Your task to perform on an android device: Go to battery settings Image 0: 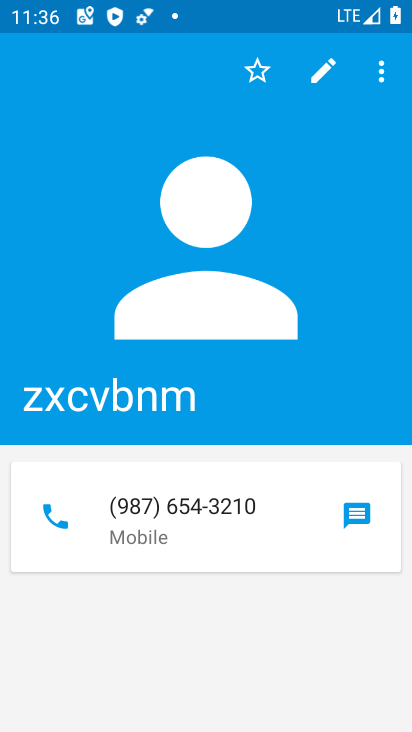
Step 0: press home button
Your task to perform on an android device: Go to battery settings Image 1: 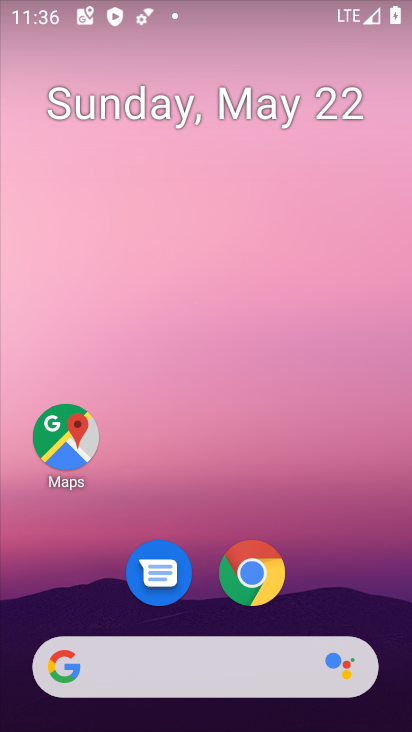
Step 1: drag from (333, 619) to (321, 49)
Your task to perform on an android device: Go to battery settings Image 2: 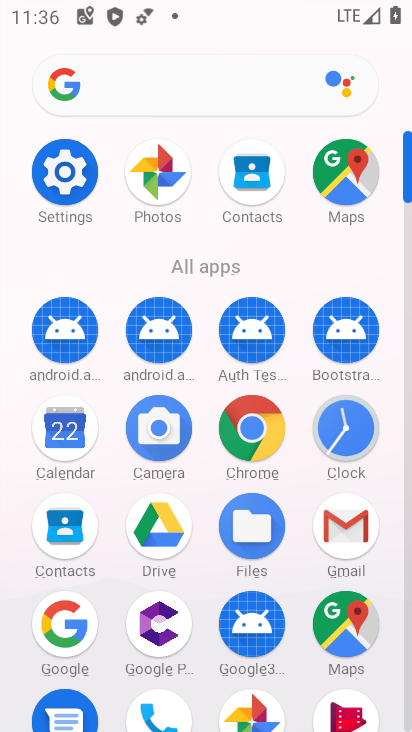
Step 2: click (47, 176)
Your task to perform on an android device: Go to battery settings Image 3: 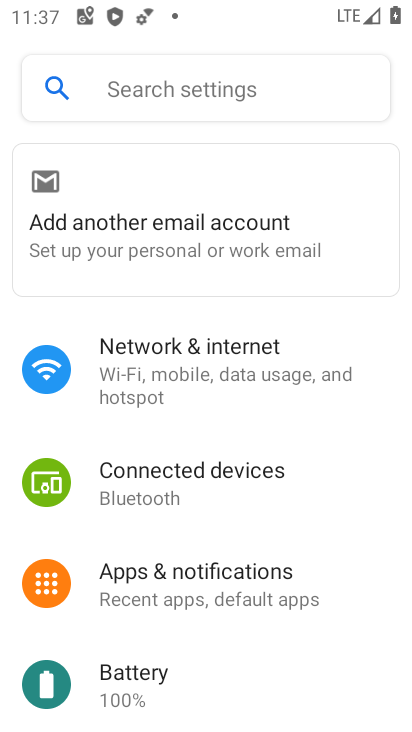
Step 3: drag from (180, 608) to (222, 180)
Your task to perform on an android device: Go to battery settings Image 4: 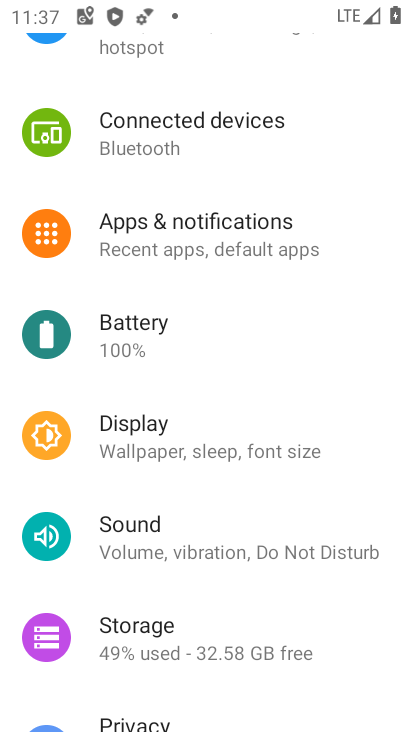
Step 4: click (189, 339)
Your task to perform on an android device: Go to battery settings Image 5: 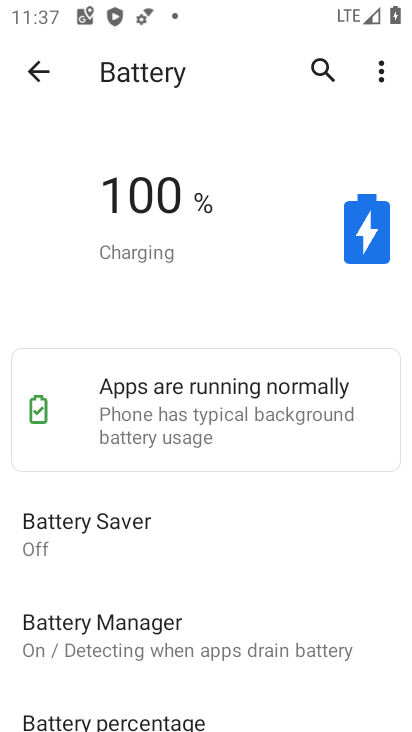
Step 5: task complete